Your task to perform on an android device: create a new album in the google photos Image 0: 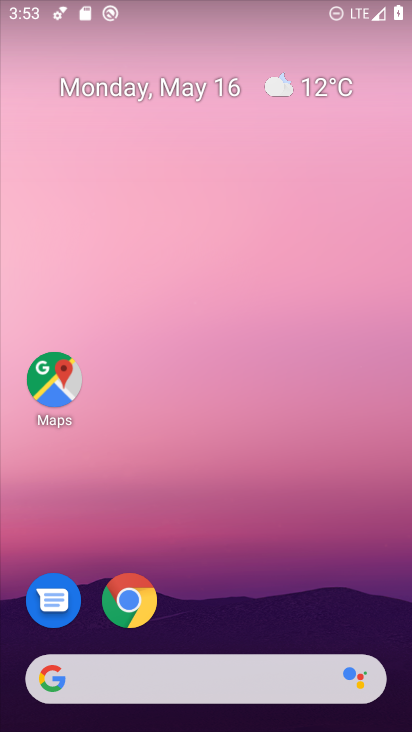
Step 0: drag from (375, 599) to (58, 17)
Your task to perform on an android device: create a new album in the google photos Image 1: 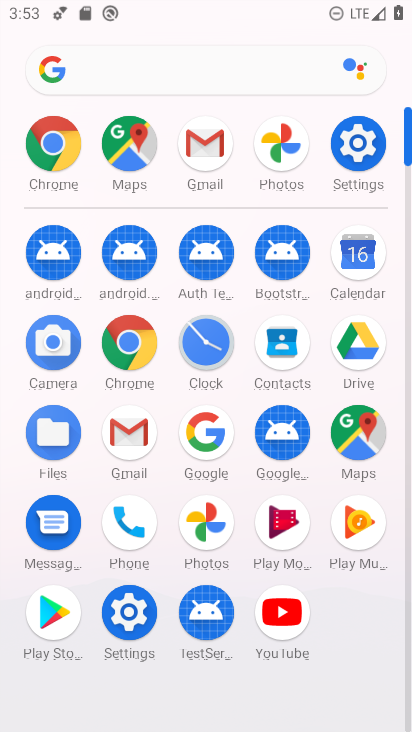
Step 1: click (209, 535)
Your task to perform on an android device: create a new album in the google photos Image 2: 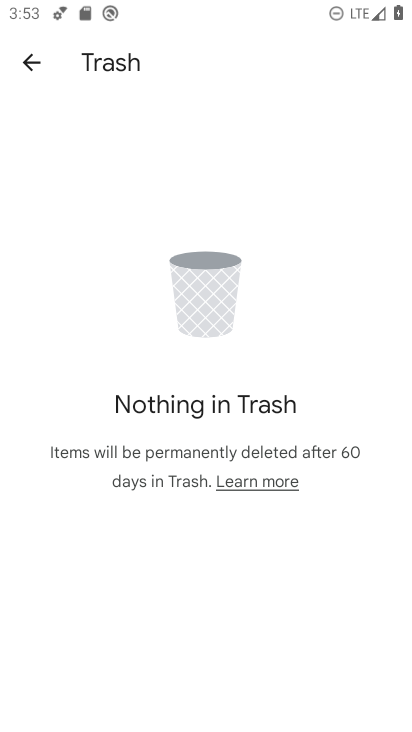
Step 2: click (40, 54)
Your task to perform on an android device: create a new album in the google photos Image 3: 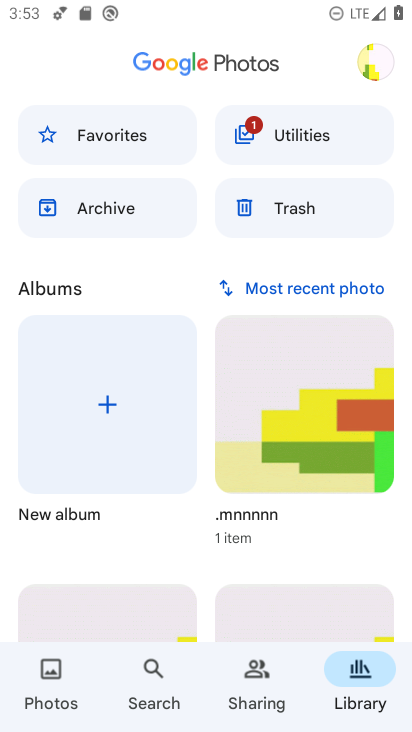
Step 3: click (152, 412)
Your task to perform on an android device: create a new album in the google photos Image 4: 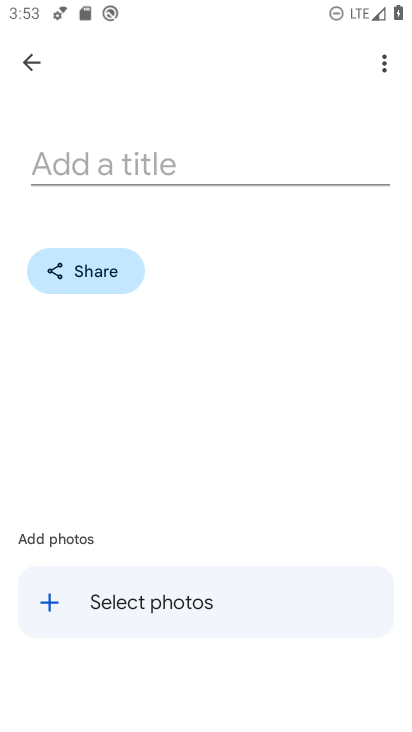
Step 4: click (245, 146)
Your task to perform on an android device: create a new album in the google photos Image 5: 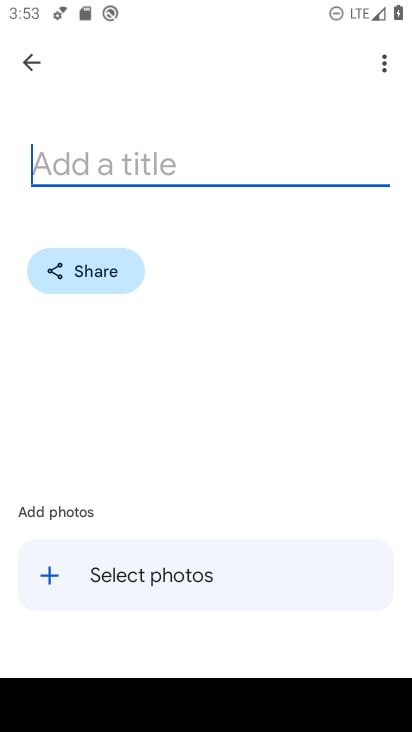
Step 5: type "cfcf"
Your task to perform on an android device: create a new album in the google photos Image 6: 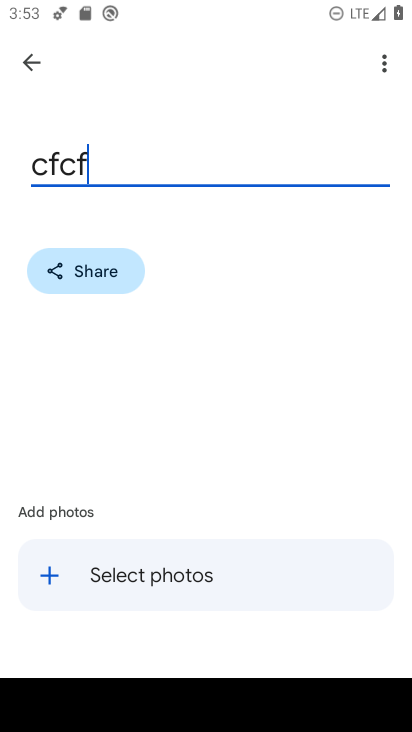
Step 6: type ""
Your task to perform on an android device: create a new album in the google photos Image 7: 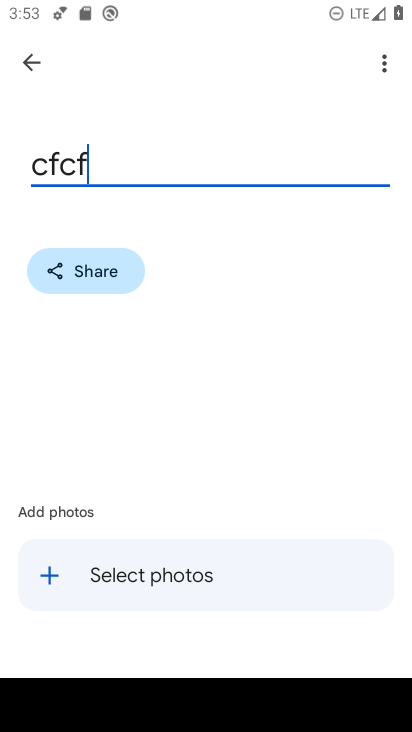
Step 7: click (229, 572)
Your task to perform on an android device: create a new album in the google photos Image 8: 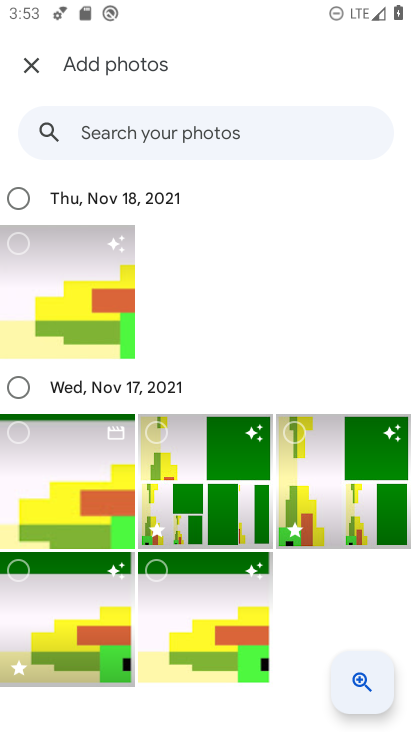
Step 8: click (87, 259)
Your task to perform on an android device: create a new album in the google photos Image 9: 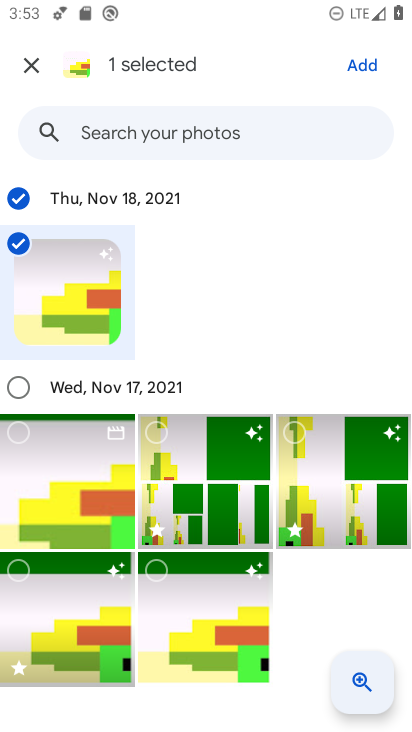
Step 9: click (354, 66)
Your task to perform on an android device: create a new album in the google photos Image 10: 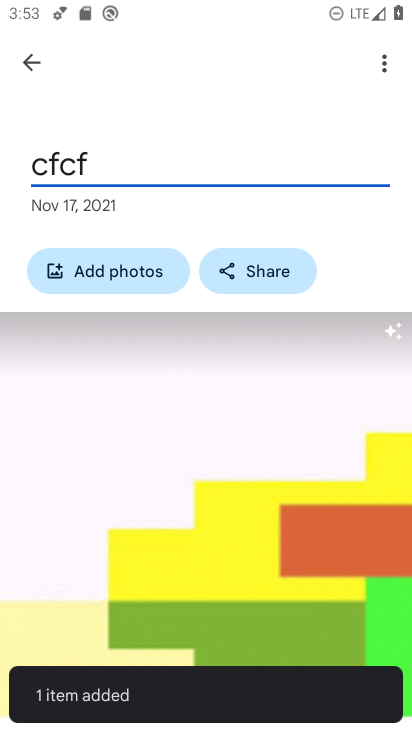
Step 10: click (346, 277)
Your task to perform on an android device: create a new album in the google photos Image 11: 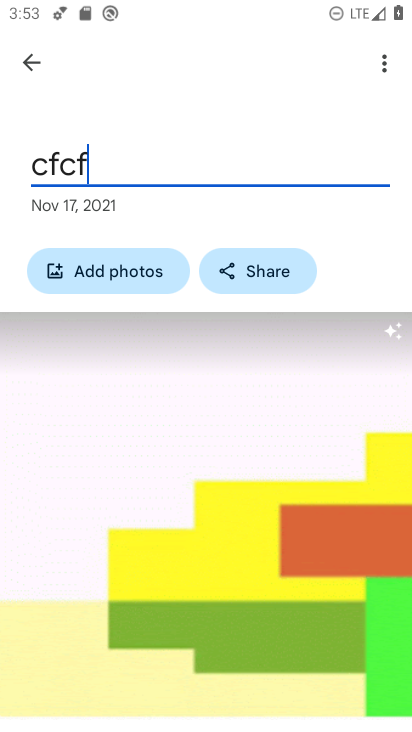
Step 11: click (359, 264)
Your task to perform on an android device: create a new album in the google photos Image 12: 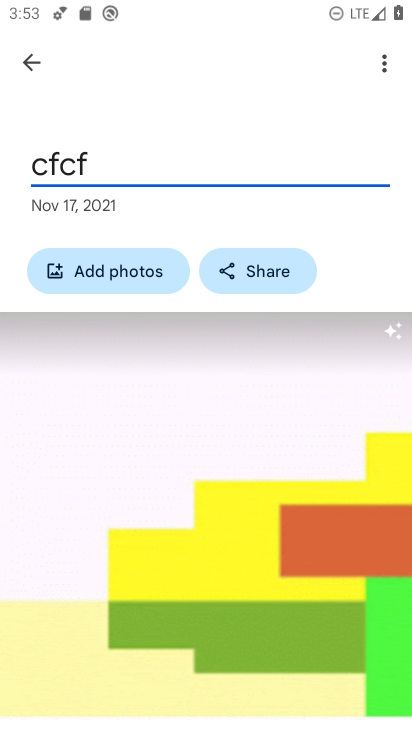
Step 12: task complete